Your task to perform on an android device: turn on airplane mode Image 0: 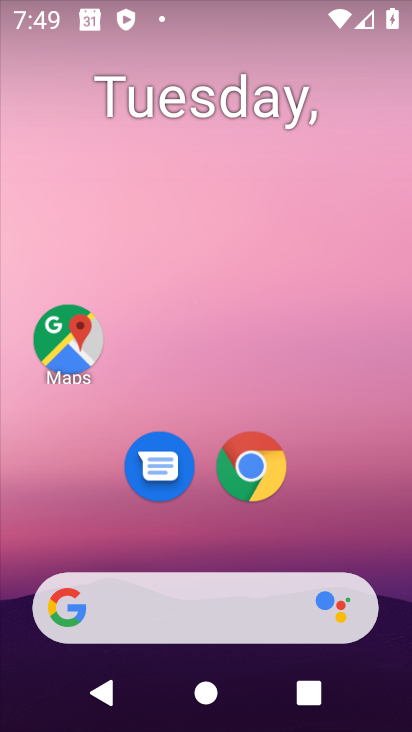
Step 0: drag from (40, 578) to (215, 181)
Your task to perform on an android device: turn on airplane mode Image 1: 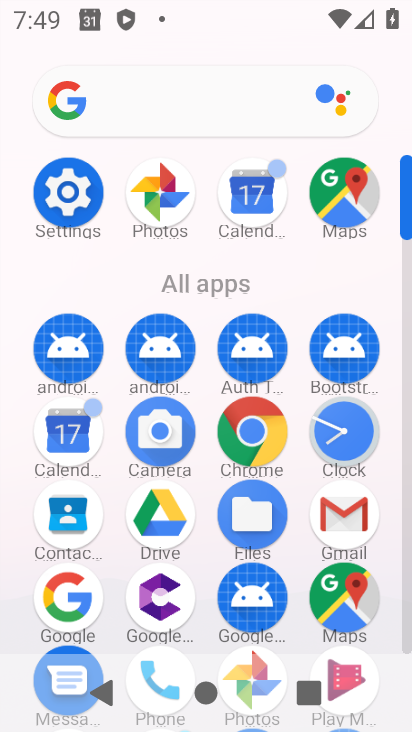
Step 1: click (85, 190)
Your task to perform on an android device: turn on airplane mode Image 2: 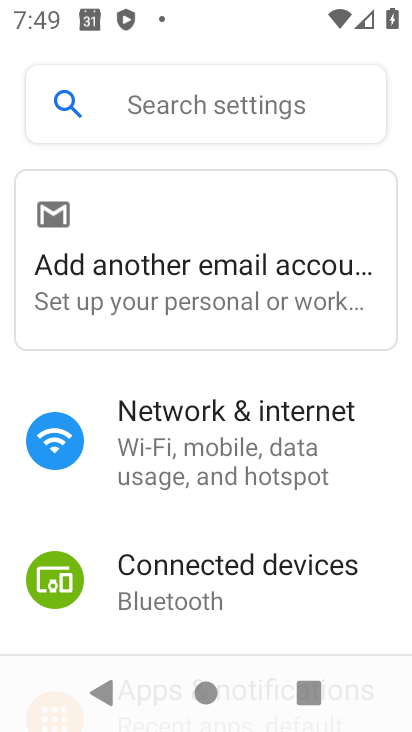
Step 2: click (242, 452)
Your task to perform on an android device: turn on airplane mode Image 3: 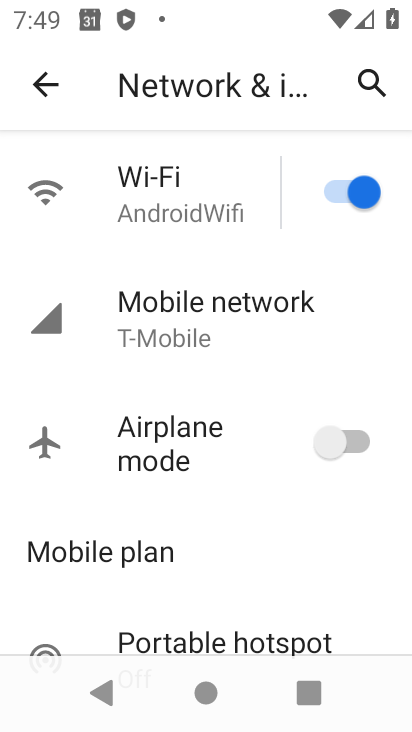
Step 3: click (333, 429)
Your task to perform on an android device: turn on airplane mode Image 4: 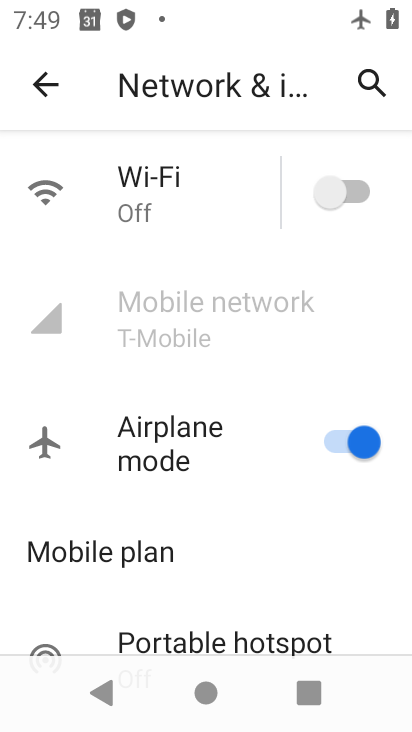
Step 4: task complete